Your task to perform on an android device: Open eBay Image 0: 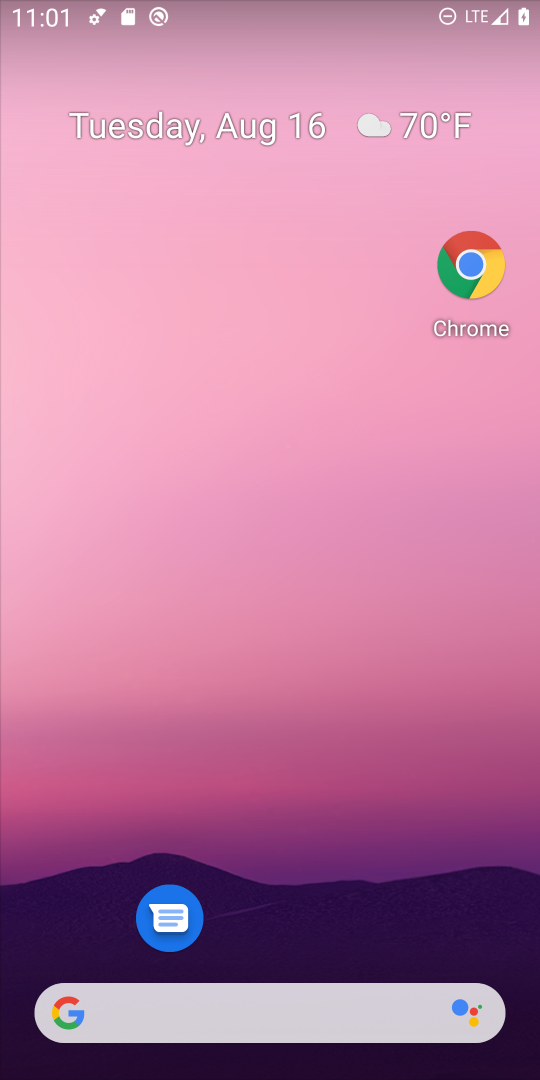
Step 0: drag from (349, 687) to (404, 39)
Your task to perform on an android device: Open eBay Image 1: 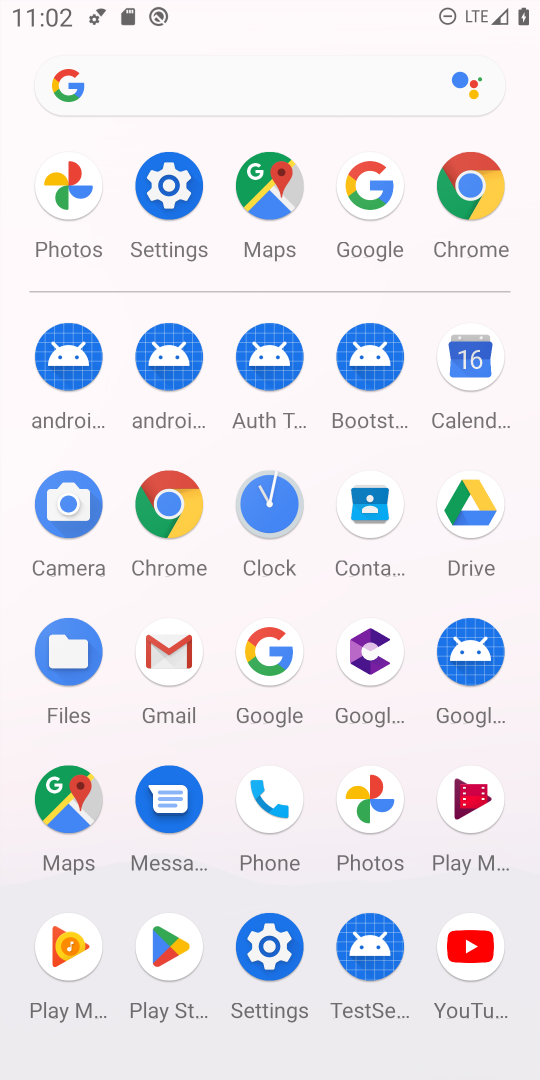
Step 1: drag from (306, 786) to (370, 248)
Your task to perform on an android device: Open eBay Image 2: 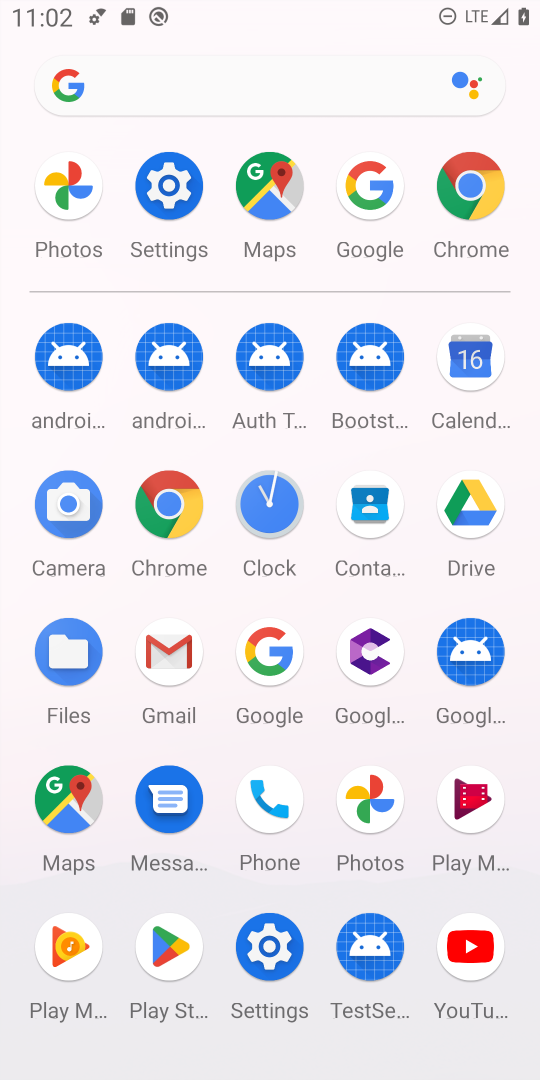
Step 2: click (467, 214)
Your task to perform on an android device: Open eBay Image 3: 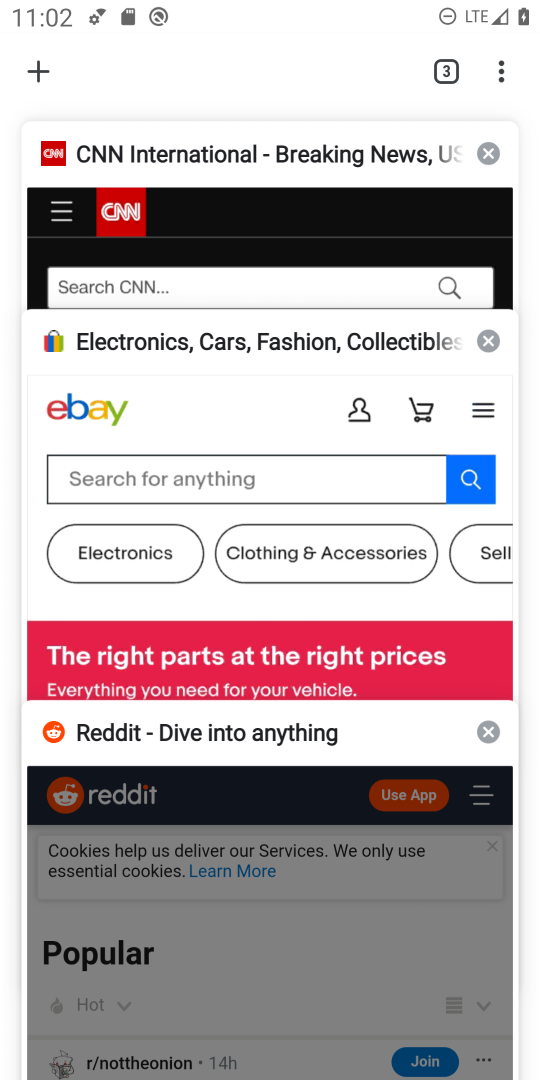
Step 3: click (240, 401)
Your task to perform on an android device: Open eBay Image 4: 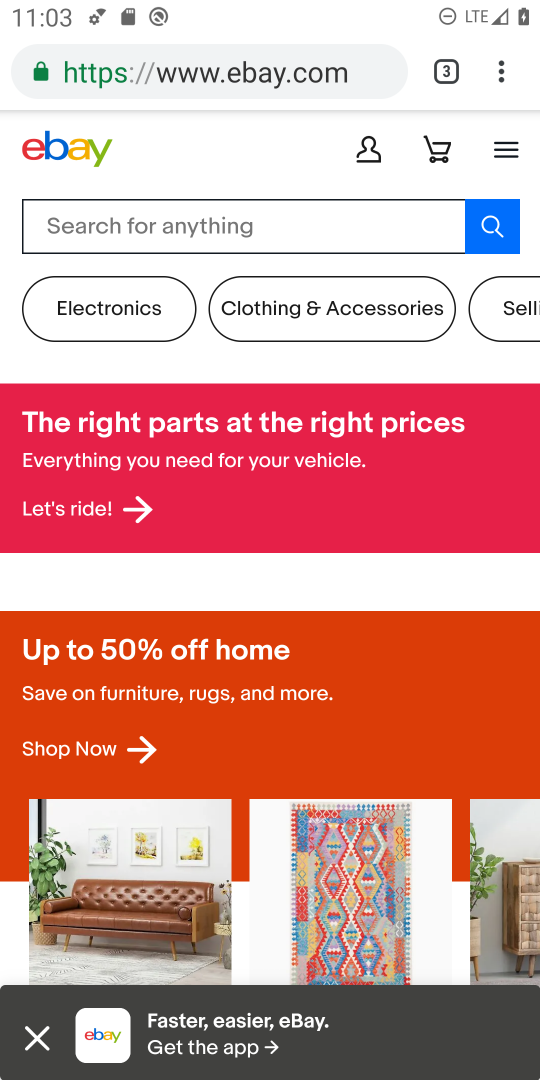
Step 4: task complete